Your task to perform on an android device: Find coffee shops on Maps Image 0: 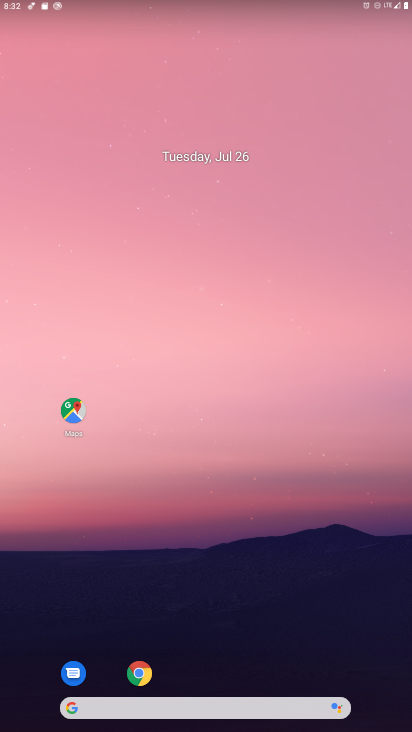
Step 0: drag from (327, 618) to (81, 36)
Your task to perform on an android device: Find coffee shops on Maps Image 1: 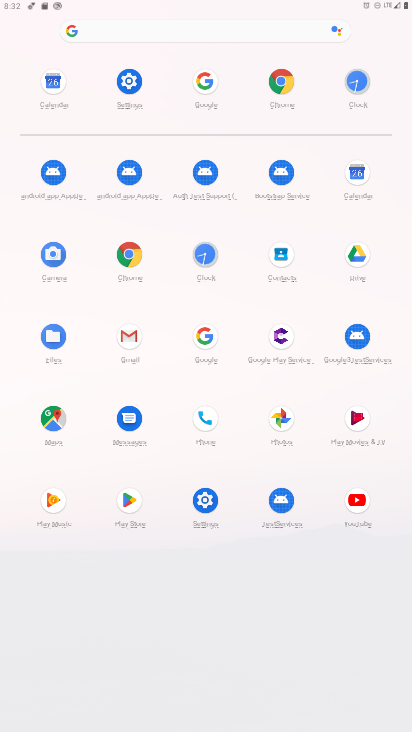
Step 1: click (48, 421)
Your task to perform on an android device: Find coffee shops on Maps Image 2: 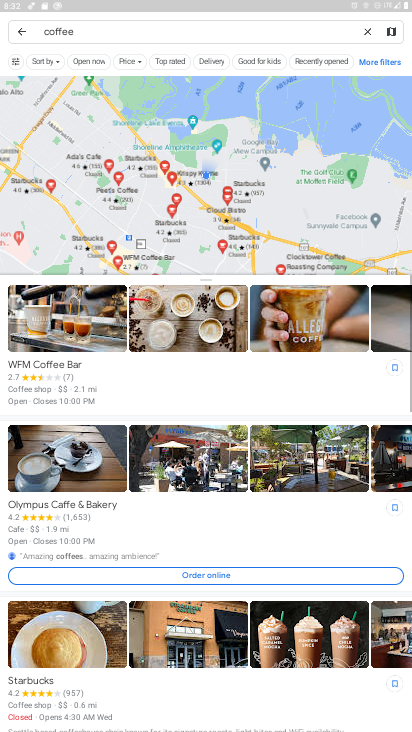
Step 2: click (369, 28)
Your task to perform on an android device: Find coffee shops on Maps Image 3: 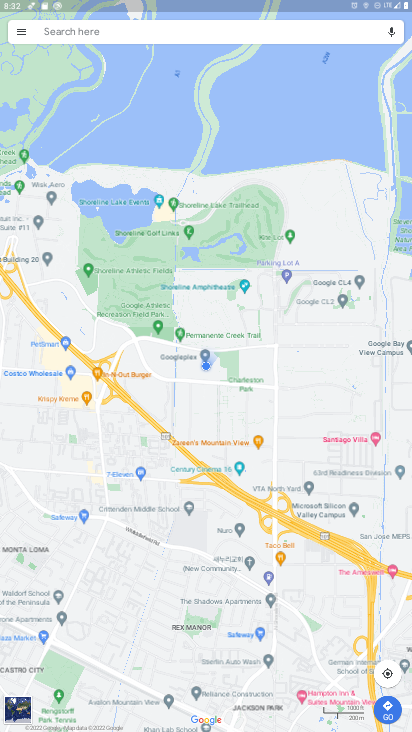
Step 3: click (121, 29)
Your task to perform on an android device: Find coffee shops on Maps Image 4: 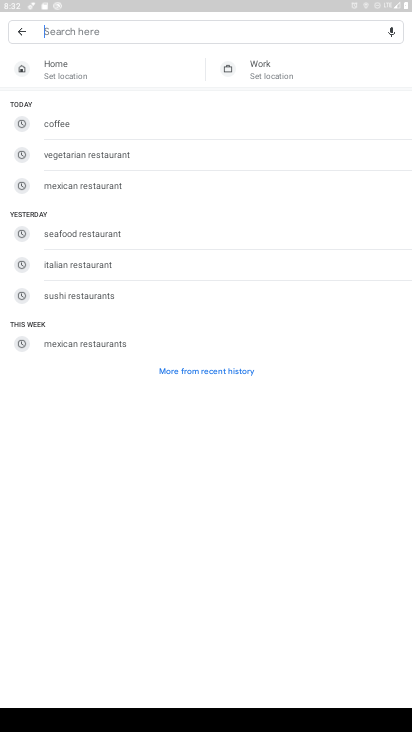
Step 4: click (58, 125)
Your task to perform on an android device: Find coffee shops on Maps Image 5: 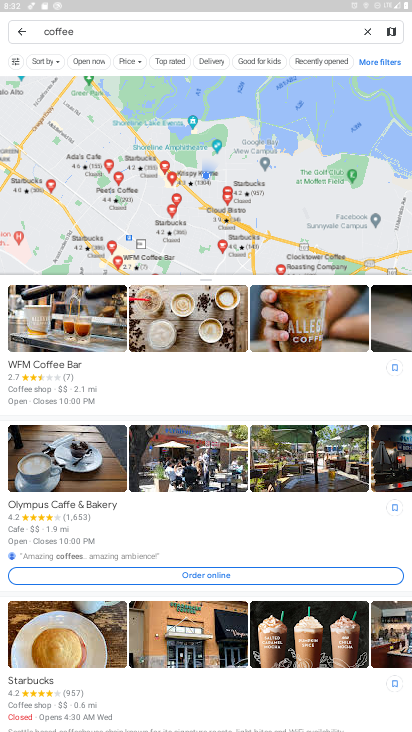
Step 5: task complete